Your task to perform on an android device: Go to Maps Image 0: 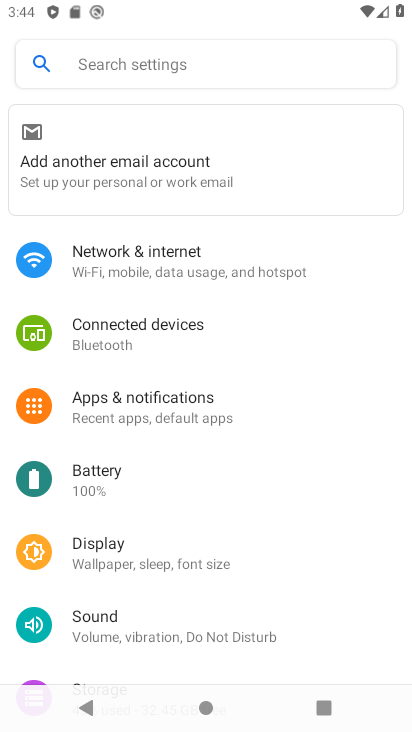
Step 0: press home button
Your task to perform on an android device: Go to Maps Image 1: 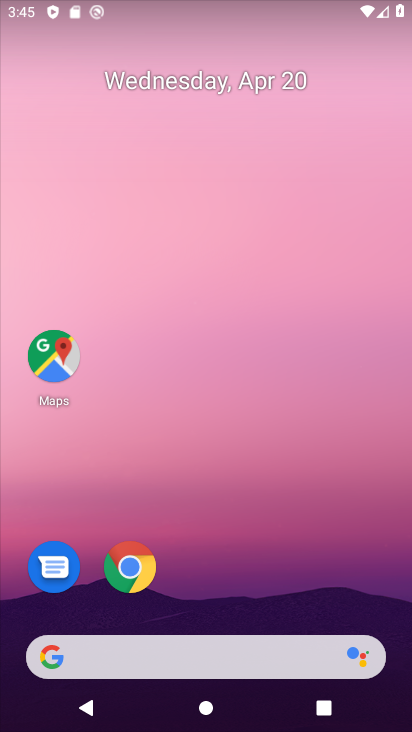
Step 1: click (52, 371)
Your task to perform on an android device: Go to Maps Image 2: 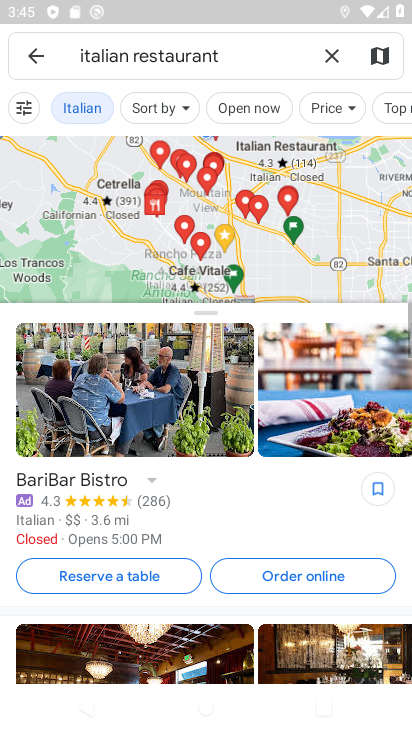
Step 2: task complete